Your task to perform on an android device: see creations saved in the google photos Image 0: 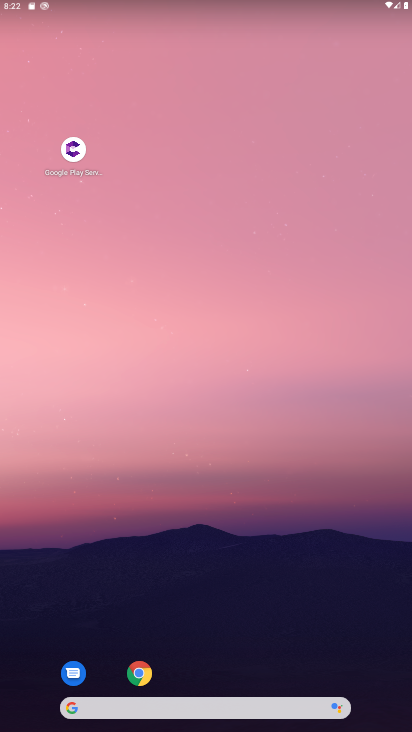
Step 0: drag from (380, 682) to (347, 99)
Your task to perform on an android device: see creations saved in the google photos Image 1: 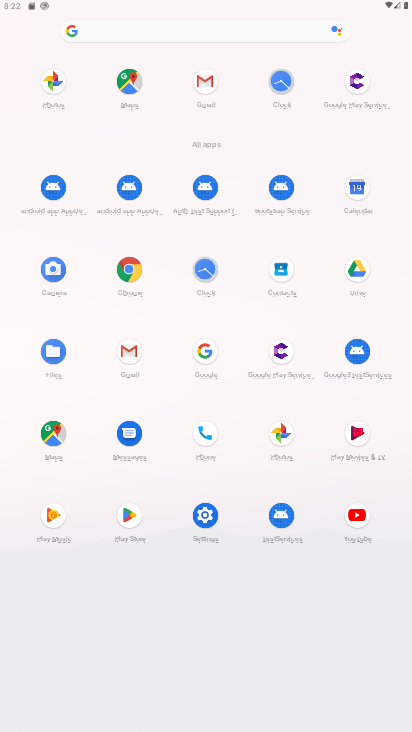
Step 1: click (282, 433)
Your task to perform on an android device: see creations saved in the google photos Image 2: 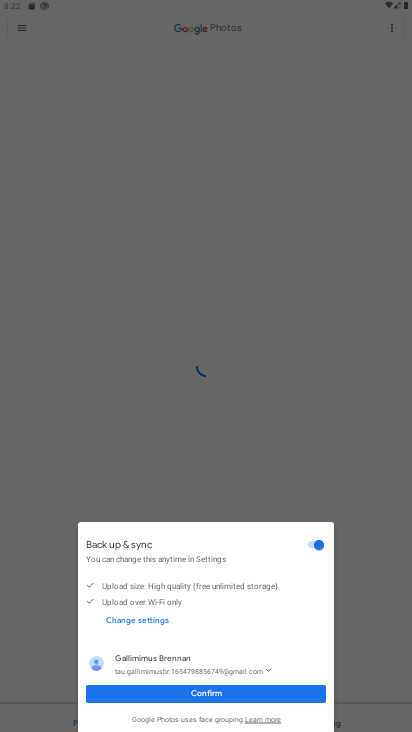
Step 2: click (199, 693)
Your task to perform on an android device: see creations saved in the google photos Image 3: 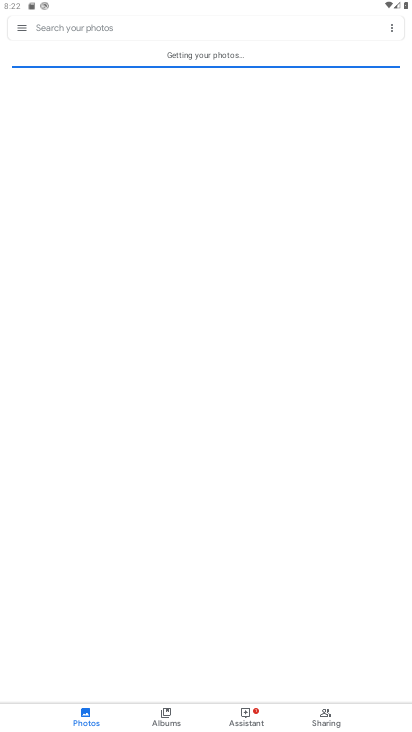
Step 3: click (20, 30)
Your task to perform on an android device: see creations saved in the google photos Image 4: 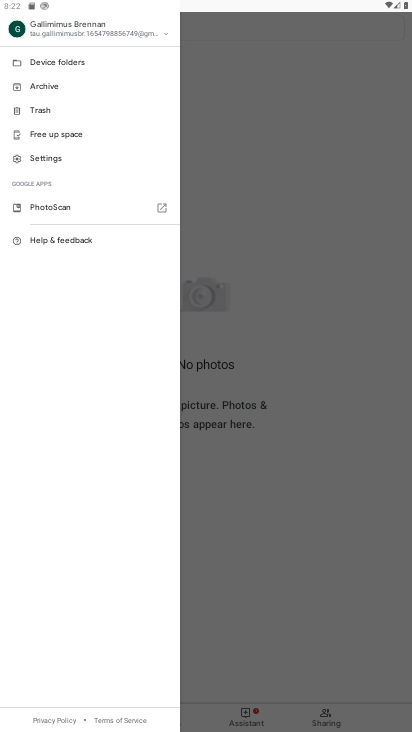
Step 4: click (193, 167)
Your task to perform on an android device: see creations saved in the google photos Image 5: 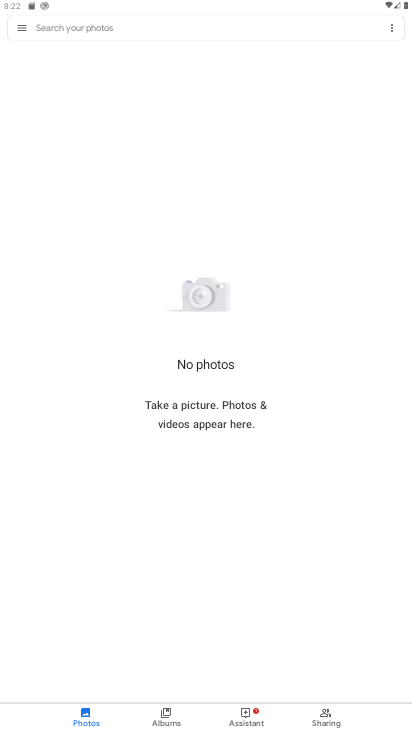
Step 5: task complete